Your task to perform on an android device: Show me productivity apps on the Play Store Image 0: 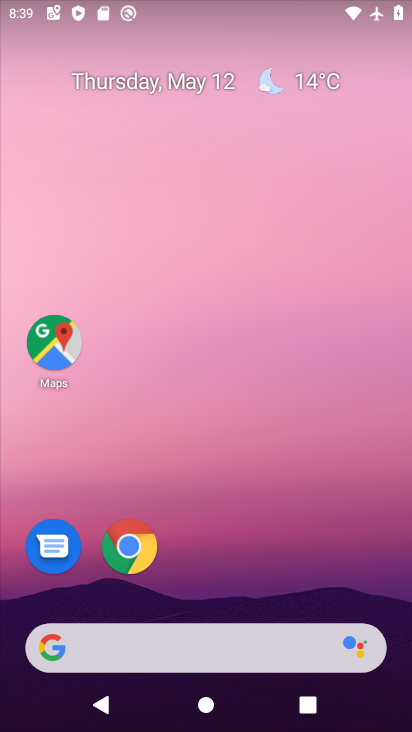
Step 0: drag from (251, 471) to (323, 270)
Your task to perform on an android device: Show me productivity apps on the Play Store Image 1: 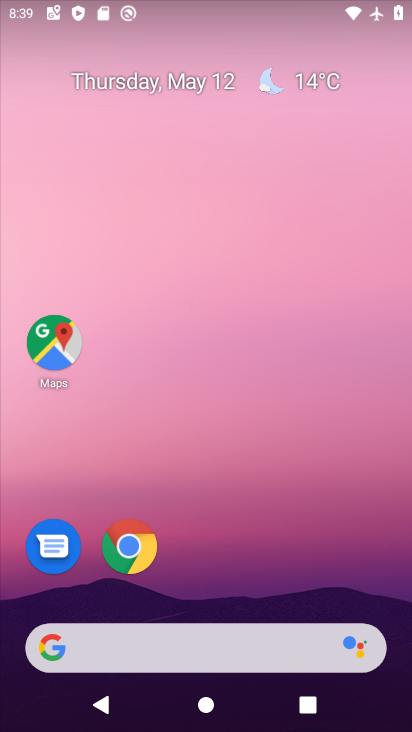
Step 1: drag from (247, 614) to (410, 179)
Your task to perform on an android device: Show me productivity apps on the Play Store Image 2: 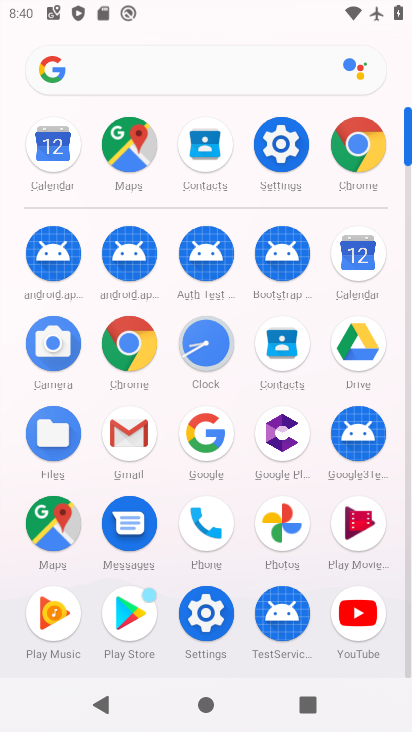
Step 2: click (122, 611)
Your task to perform on an android device: Show me productivity apps on the Play Store Image 3: 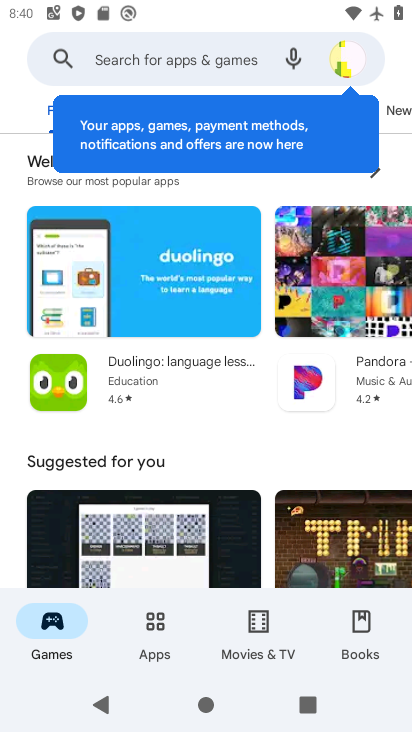
Step 3: click (163, 618)
Your task to perform on an android device: Show me productivity apps on the Play Store Image 4: 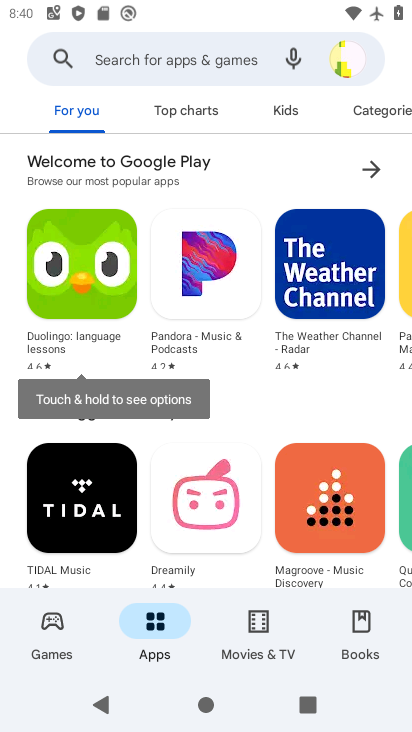
Step 4: click (379, 106)
Your task to perform on an android device: Show me productivity apps on the Play Store Image 5: 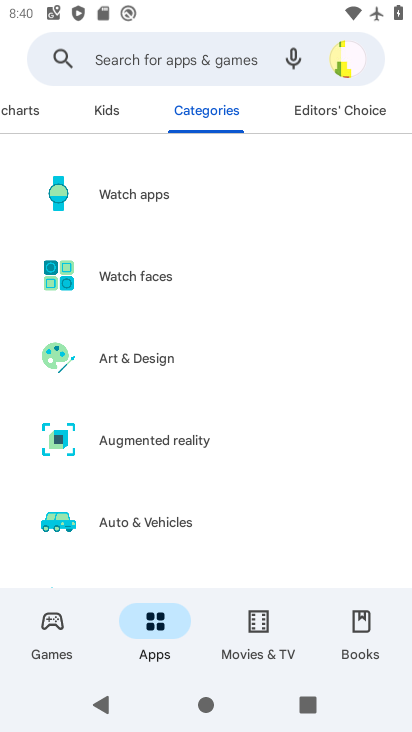
Step 5: drag from (252, 508) to (412, 326)
Your task to perform on an android device: Show me productivity apps on the Play Store Image 6: 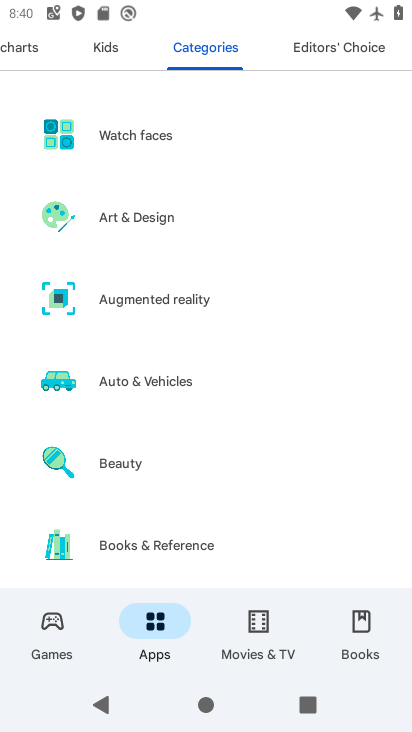
Step 6: drag from (224, 514) to (250, 76)
Your task to perform on an android device: Show me productivity apps on the Play Store Image 7: 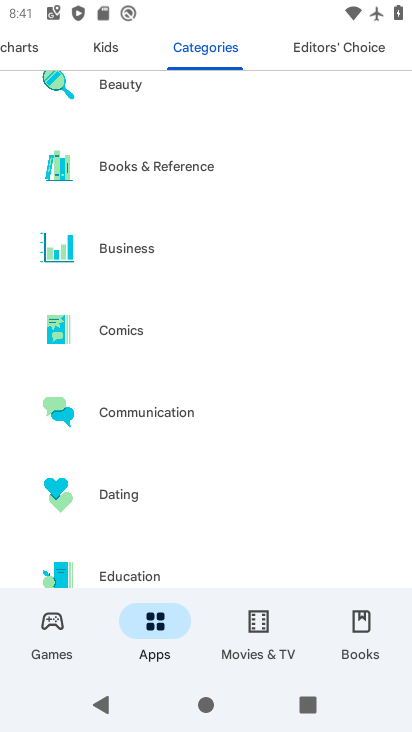
Step 7: drag from (266, 322) to (339, 5)
Your task to perform on an android device: Show me productivity apps on the Play Store Image 8: 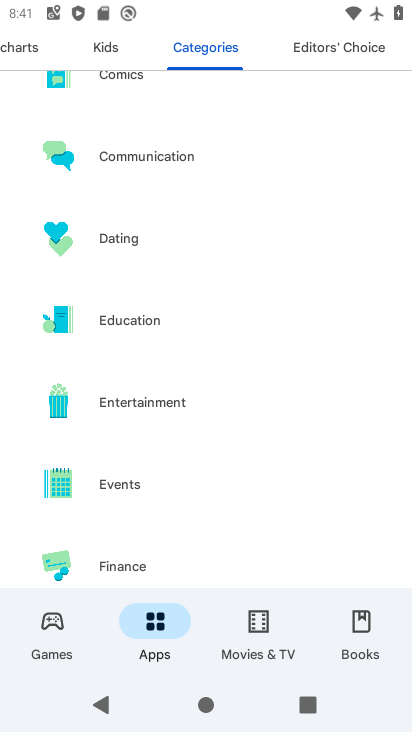
Step 8: drag from (273, 362) to (332, 287)
Your task to perform on an android device: Show me productivity apps on the Play Store Image 9: 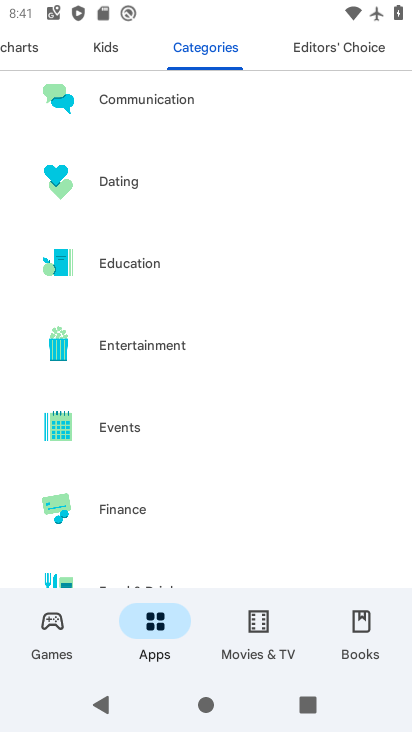
Step 9: drag from (229, 480) to (380, 127)
Your task to perform on an android device: Show me productivity apps on the Play Store Image 10: 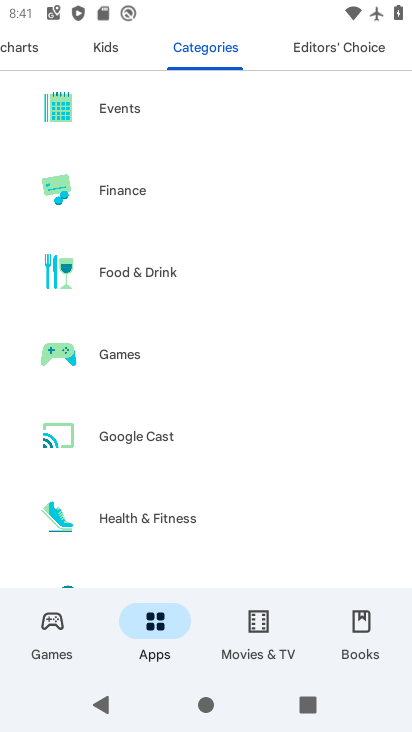
Step 10: drag from (204, 478) to (344, 86)
Your task to perform on an android device: Show me productivity apps on the Play Store Image 11: 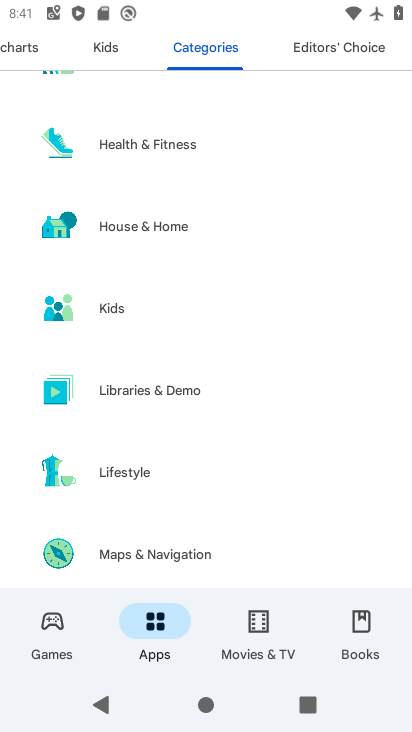
Step 11: drag from (240, 484) to (369, 112)
Your task to perform on an android device: Show me productivity apps on the Play Store Image 12: 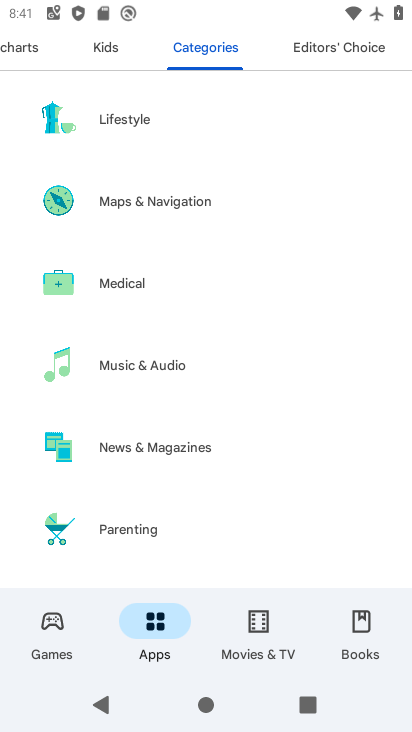
Step 12: drag from (220, 457) to (370, 71)
Your task to perform on an android device: Show me productivity apps on the Play Store Image 13: 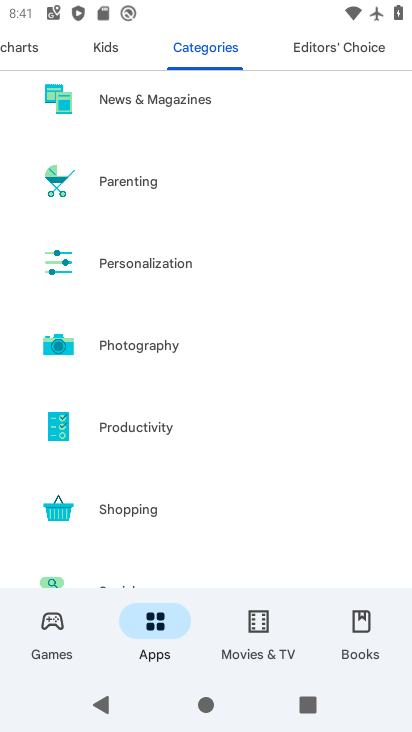
Step 13: click (124, 437)
Your task to perform on an android device: Show me productivity apps on the Play Store Image 14: 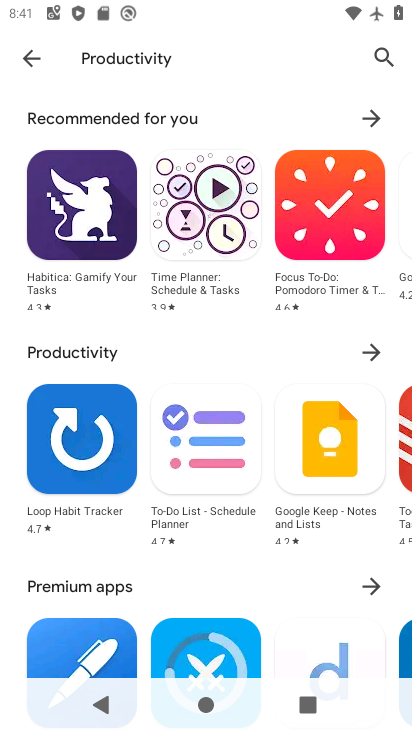
Step 14: task complete